Your task to perform on an android device: Open Google Chrome and open the bookmarks view Image 0: 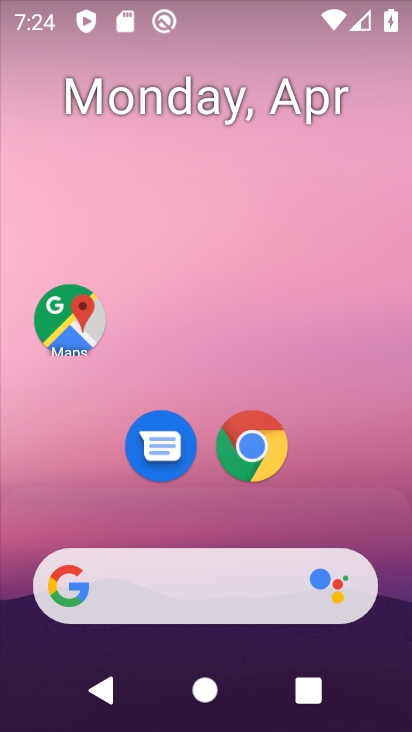
Step 0: drag from (317, 397) to (245, 17)
Your task to perform on an android device: Open Google Chrome and open the bookmarks view Image 1: 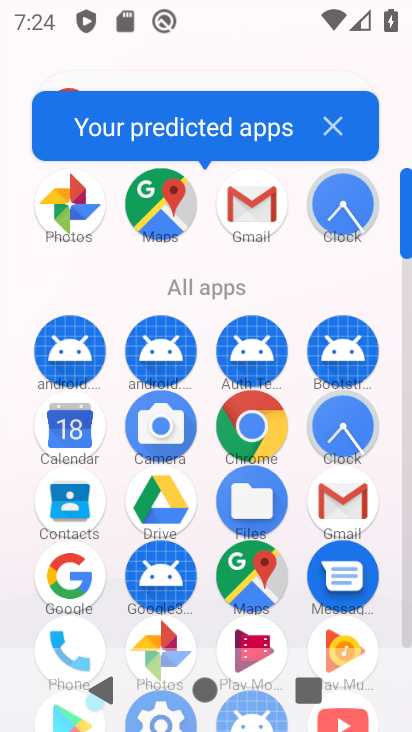
Step 1: drag from (6, 457) to (2, 188)
Your task to perform on an android device: Open Google Chrome and open the bookmarks view Image 2: 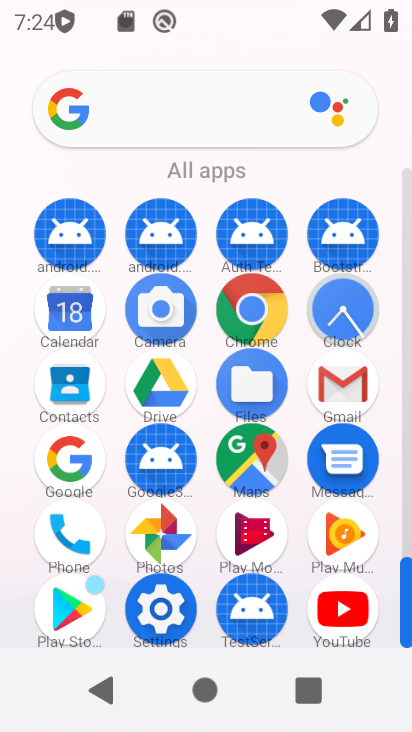
Step 2: click (245, 297)
Your task to perform on an android device: Open Google Chrome and open the bookmarks view Image 3: 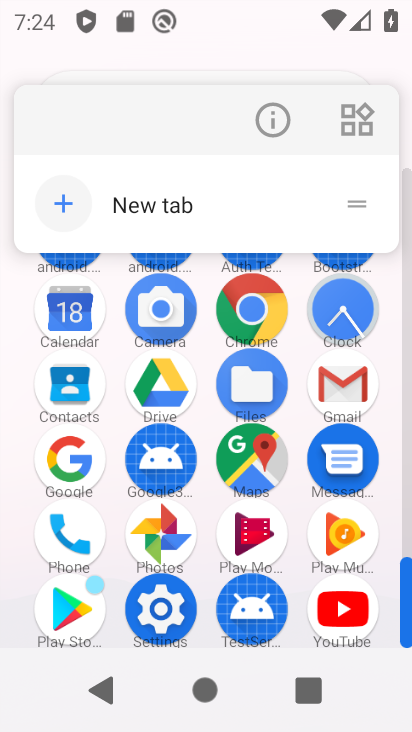
Step 3: click (255, 312)
Your task to perform on an android device: Open Google Chrome and open the bookmarks view Image 4: 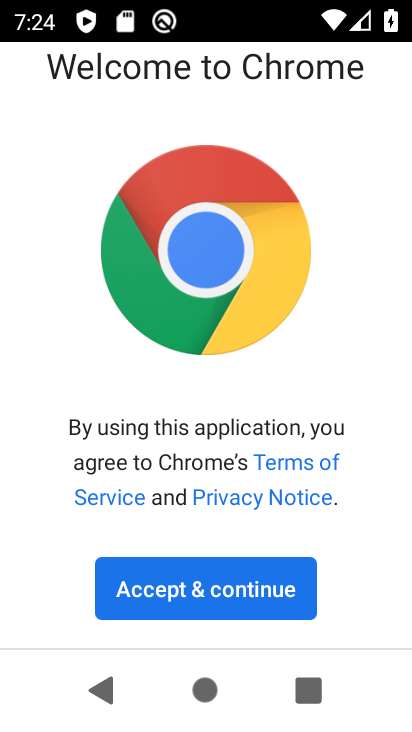
Step 4: click (210, 593)
Your task to perform on an android device: Open Google Chrome and open the bookmarks view Image 5: 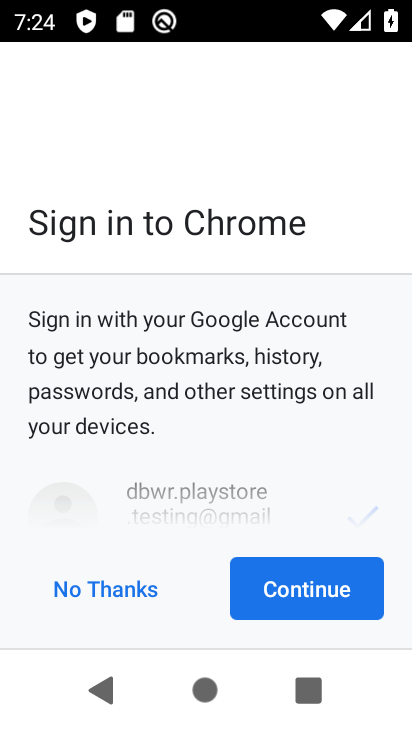
Step 5: click (287, 588)
Your task to perform on an android device: Open Google Chrome and open the bookmarks view Image 6: 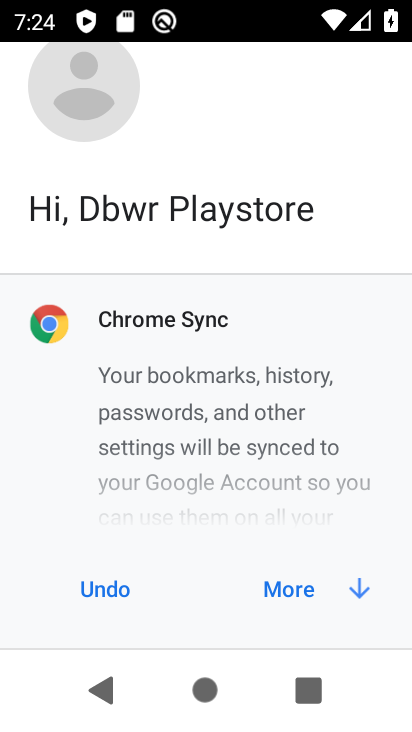
Step 6: click (287, 588)
Your task to perform on an android device: Open Google Chrome and open the bookmarks view Image 7: 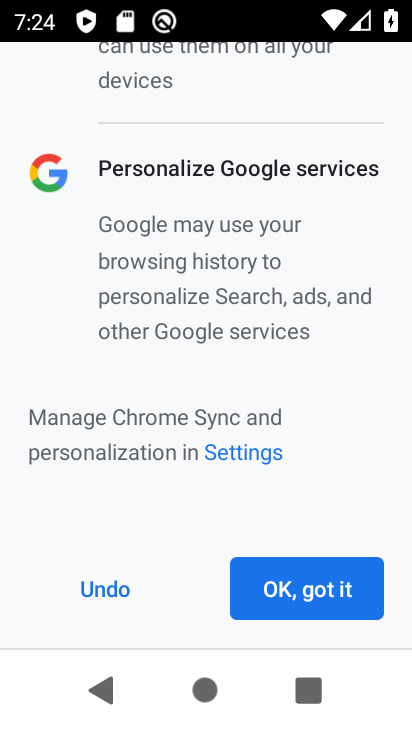
Step 7: click (287, 588)
Your task to perform on an android device: Open Google Chrome and open the bookmarks view Image 8: 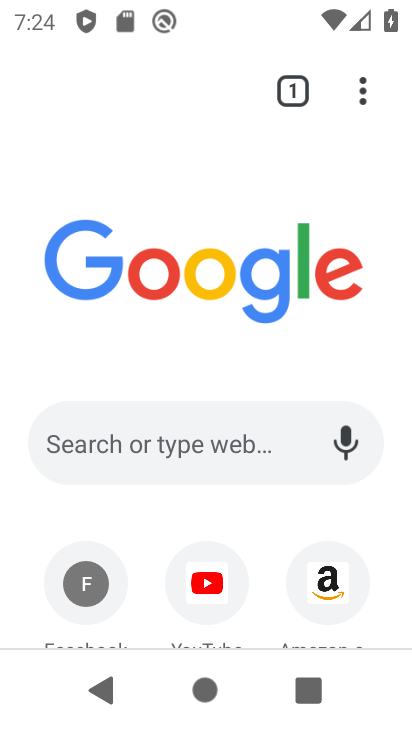
Step 8: task complete